Your task to perform on an android device: Show me popular videos on Youtube Image 0: 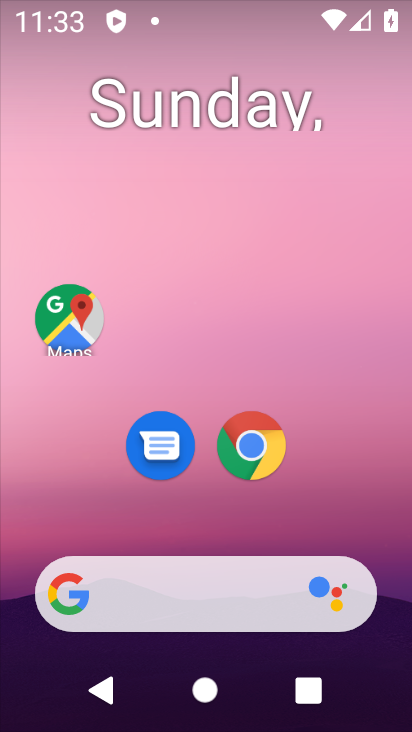
Step 0: drag from (367, 520) to (385, 82)
Your task to perform on an android device: Show me popular videos on Youtube Image 1: 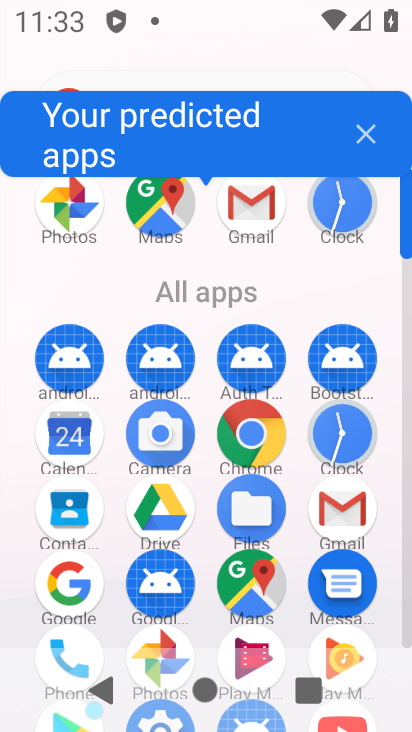
Step 1: drag from (287, 547) to (302, 300)
Your task to perform on an android device: Show me popular videos on Youtube Image 2: 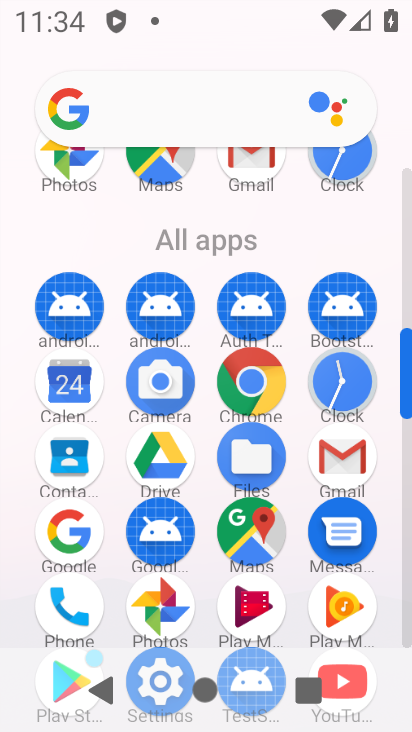
Step 2: drag from (288, 557) to (288, 336)
Your task to perform on an android device: Show me popular videos on Youtube Image 3: 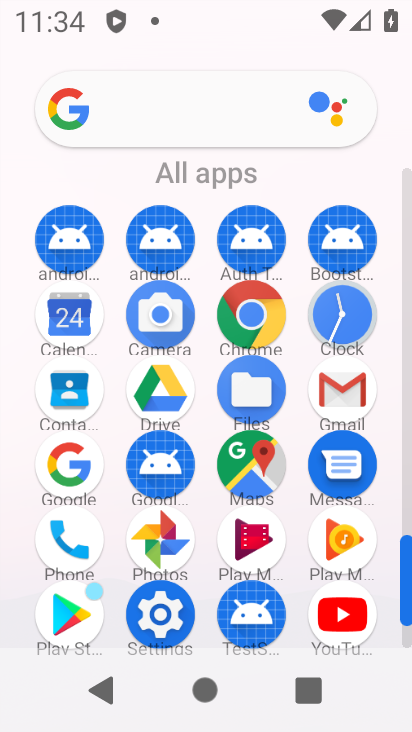
Step 3: click (332, 606)
Your task to perform on an android device: Show me popular videos on Youtube Image 4: 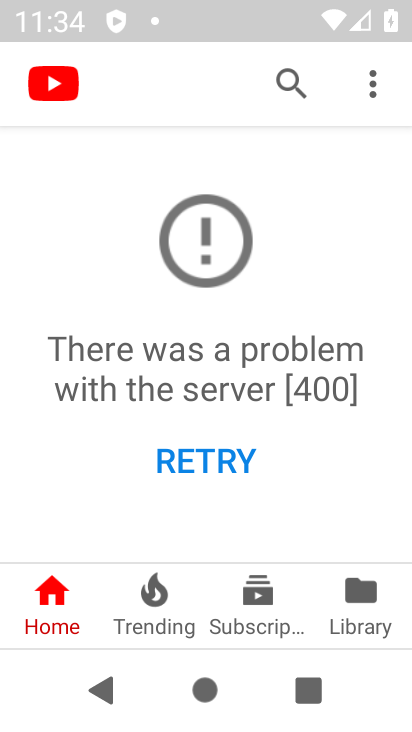
Step 4: click (162, 602)
Your task to perform on an android device: Show me popular videos on Youtube Image 5: 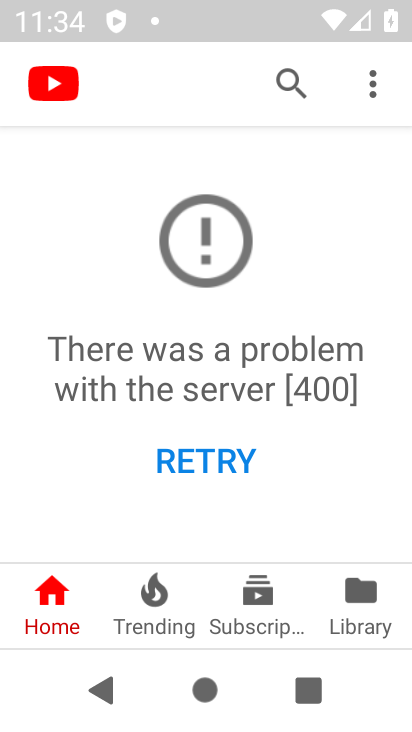
Step 5: task complete